Your task to perform on an android device: find photos in the google photos app Image 0: 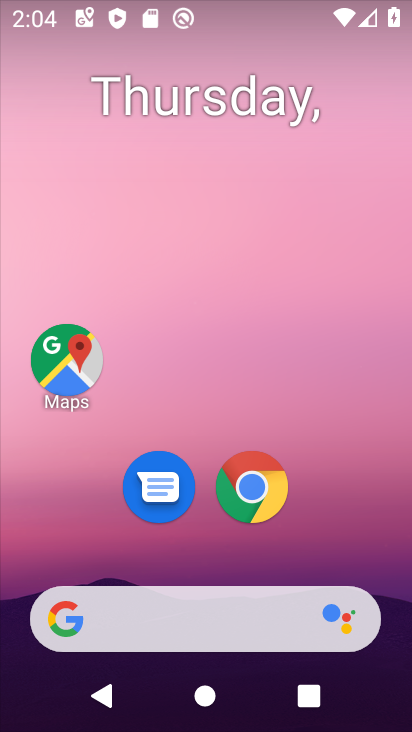
Step 0: drag from (291, 560) to (348, 46)
Your task to perform on an android device: find photos in the google photos app Image 1: 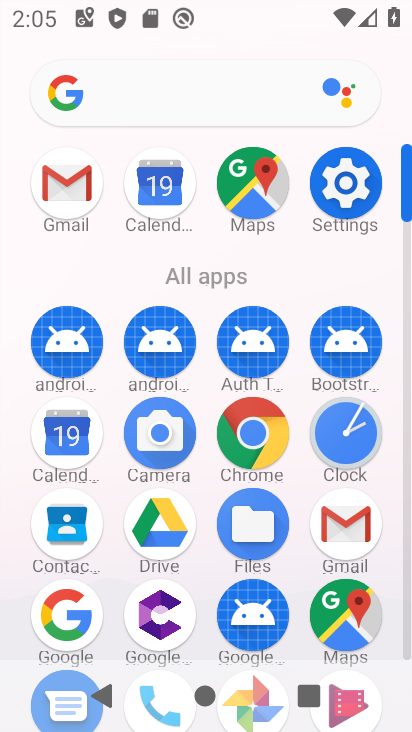
Step 1: drag from (202, 582) to (234, 273)
Your task to perform on an android device: find photos in the google photos app Image 2: 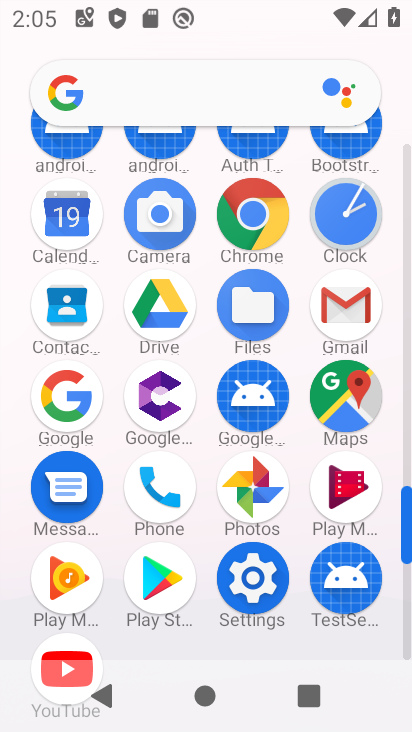
Step 2: click (255, 482)
Your task to perform on an android device: find photos in the google photos app Image 3: 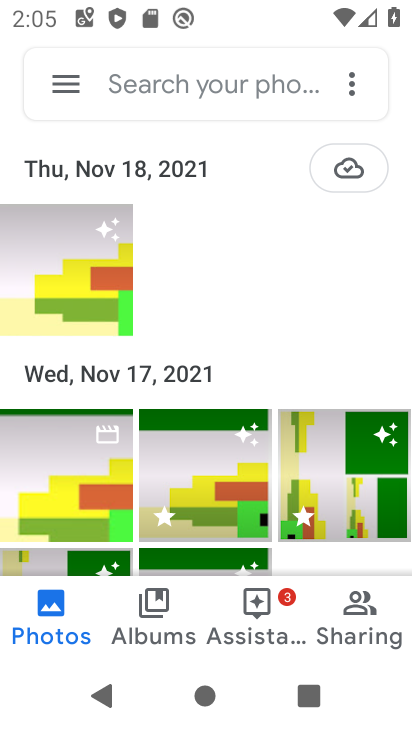
Step 3: task complete